Your task to perform on an android device: Search for Italian restaurants on Maps Image 0: 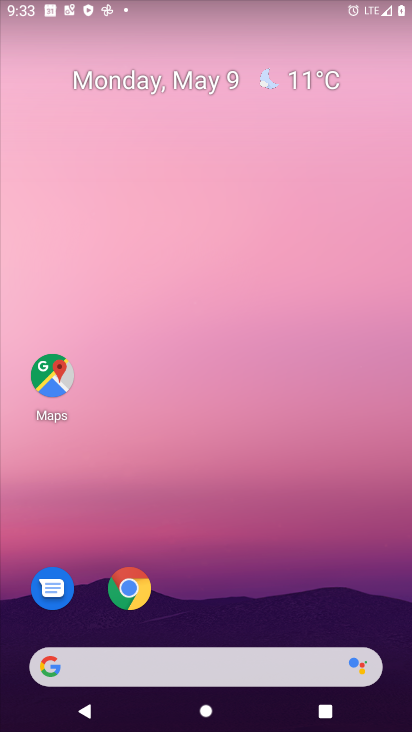
Step 0: drag from (349, 605) to (239, 9)
Your task to perform on an android device: Search for Italian restaurants on Maps Image 1: 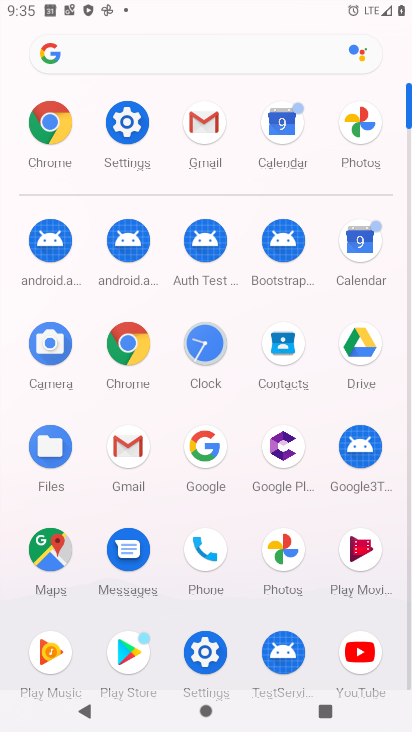
Step 1: click (50, 543)
Your task to perform on an android device: Search for Italian restaurants on Maps Image 2: 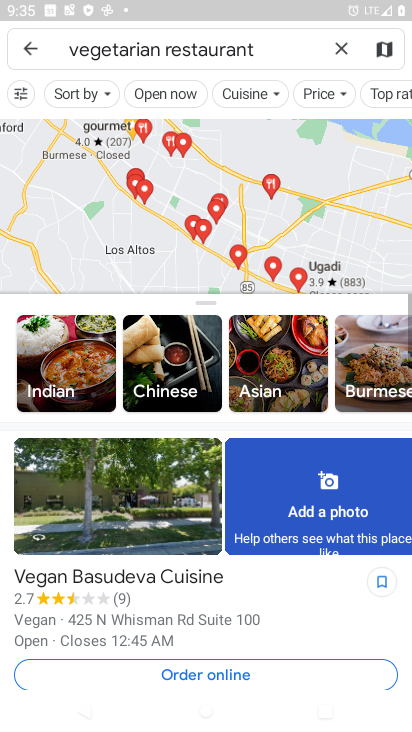
Step 2: click (339, 47)
Your task to perform on an android device: Search for Italian restaurants on Maps Image 3: 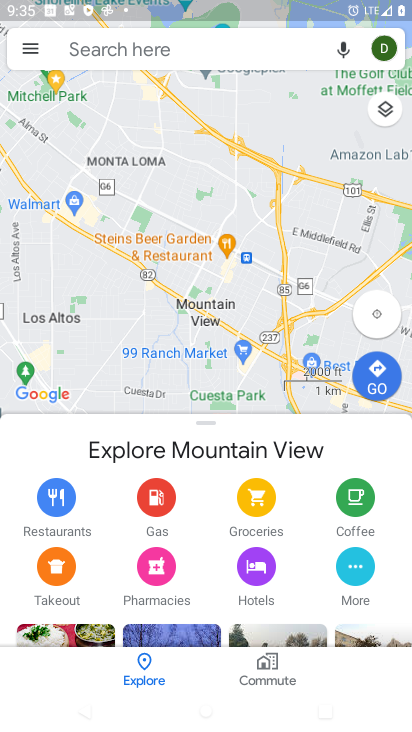
Step 3: click (254, 58)
Your task to perform on an android device: Search for Italian restaurants on Maps Image 4: 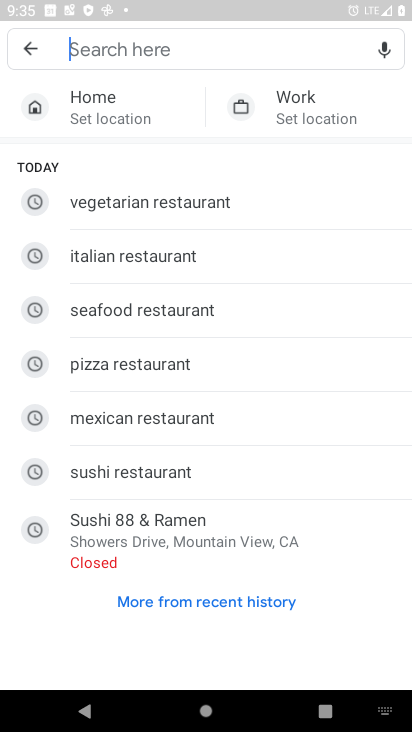
Step 4: click (115, 247)
Your task to perform on an android device: Search for Italian restaurants on Maps Image 5: 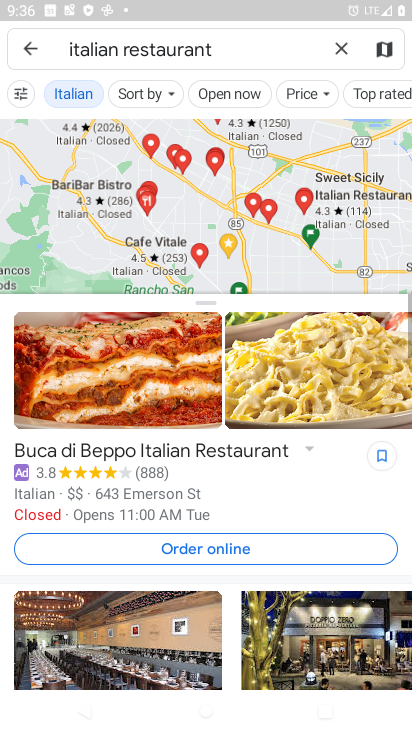
Step 5: task complete